Your task to perform on an android device: Open a new Chrome incognito window Image 0: 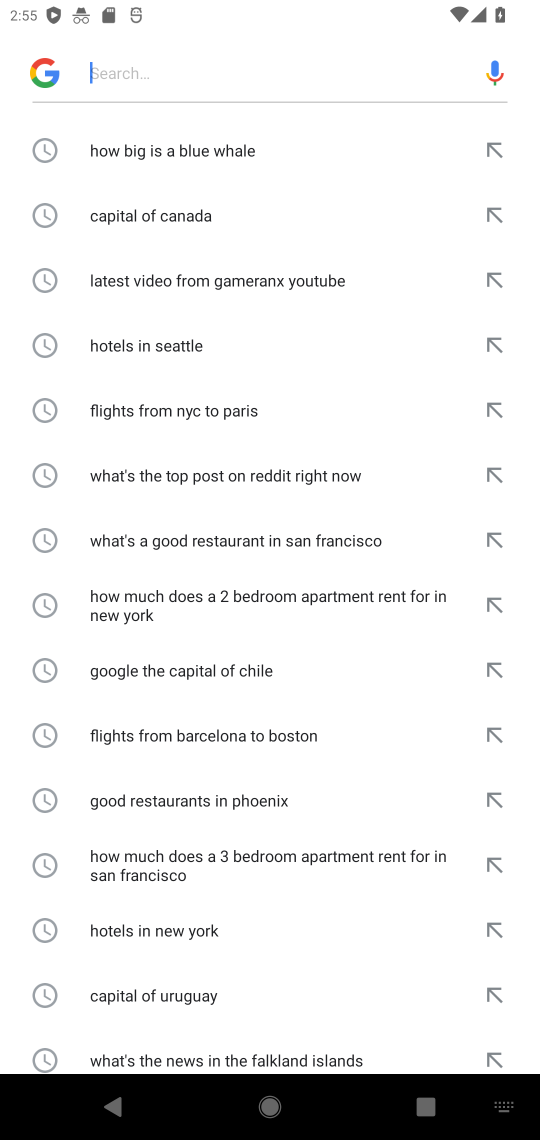
Step 0: press home button
Your task to perform on an android device: Open a new Chrome incognito window Image 1: 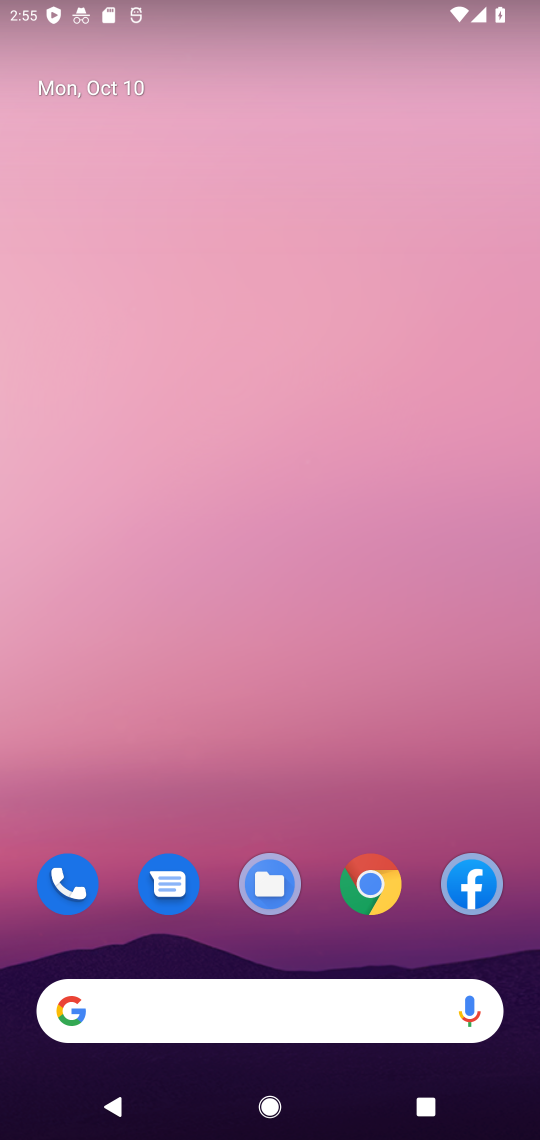
Step 1: click (372, 877)
Your task to perform on an android device: Open a new Chrome incognito window Image 2: 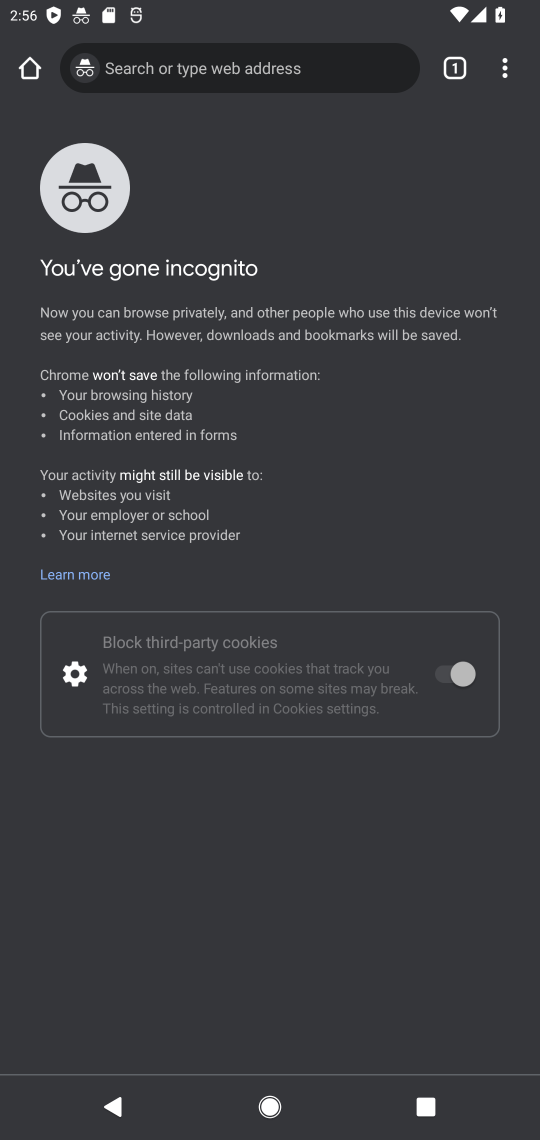
Step 2: click (502, 66)
Your task to perform on an android device: Open a new Chrome incognito window Image 3: 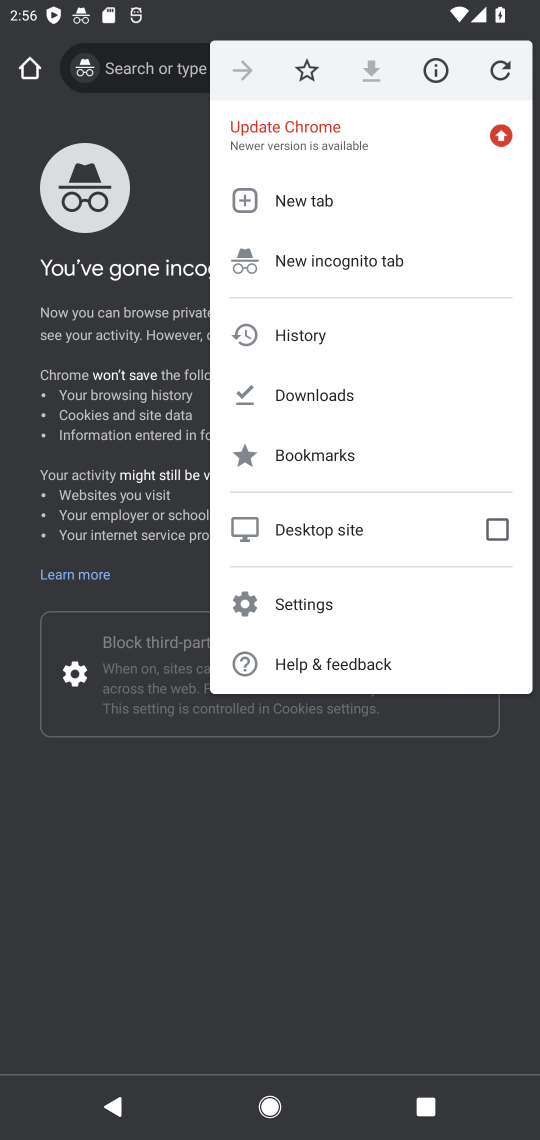
Step 3: click (298, 256)
Your task to perform on an android device: Open a new Chrome incognito window Image 4: 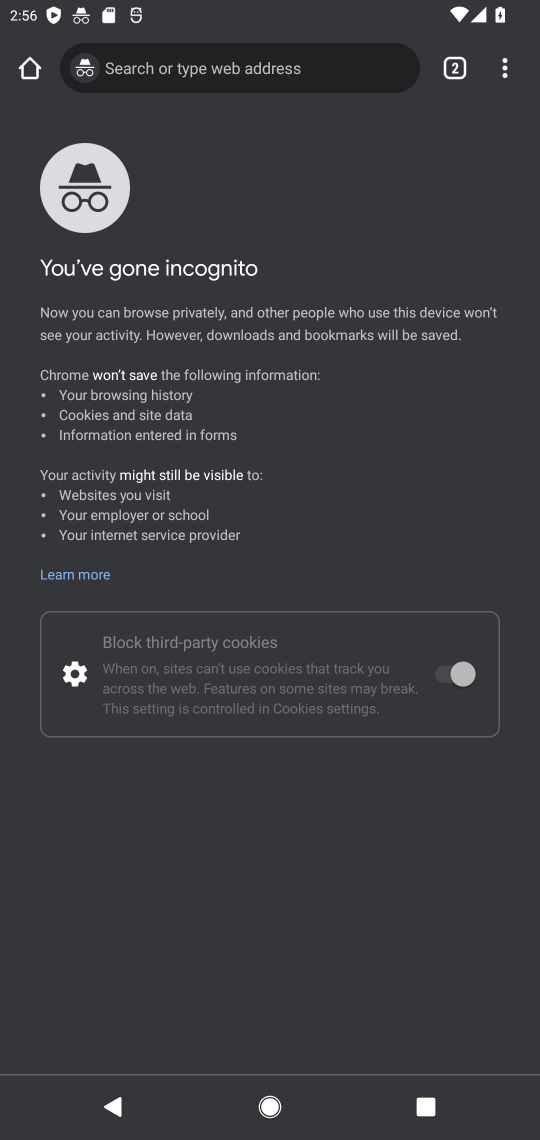
Step 4: click (29, 70)
Your task to perform on an android device: Open a new Chrome incognito window Image 5: 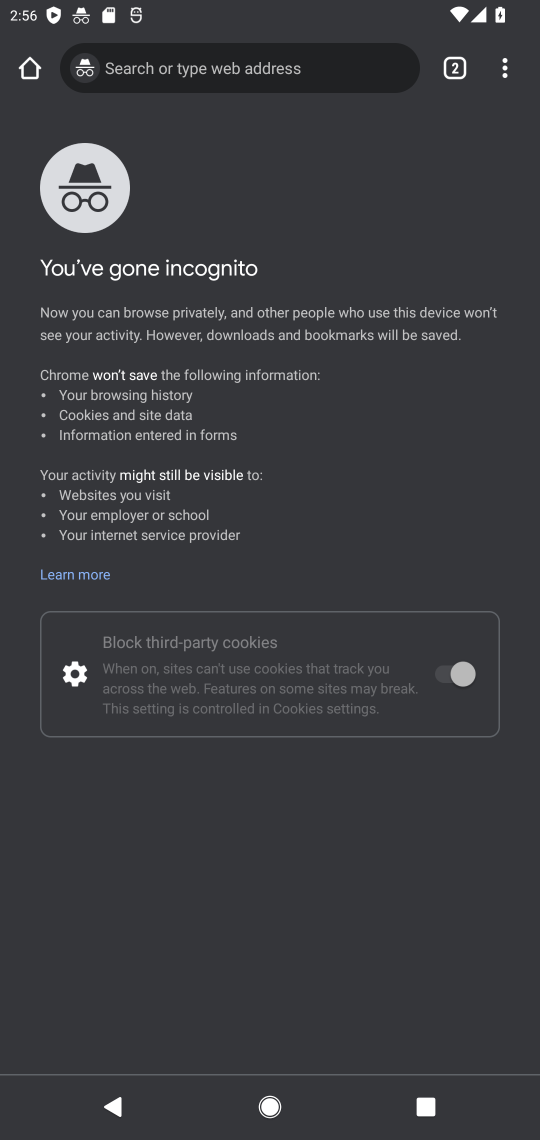
Step 5: task complete